Your task to perform on an android device: turn off javascript in the chrome app Image 0: 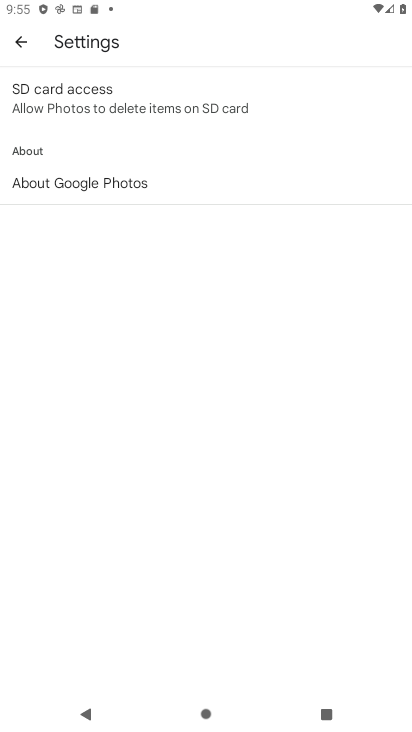
Step 0: press home button
Your task to perform on an android device: turn off javascript in the chrome app Image 1: 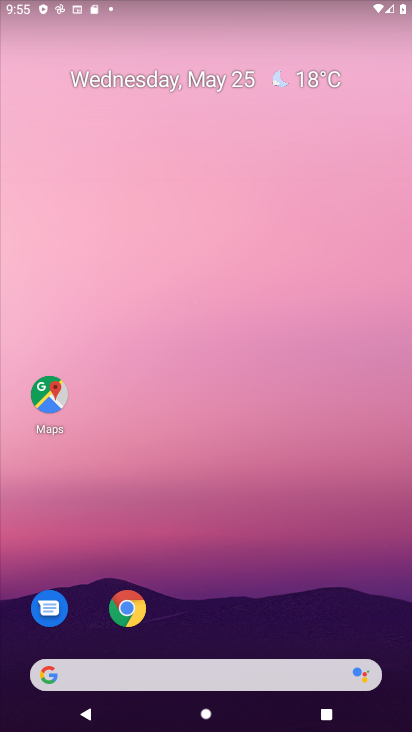
Step 1: click (139, 613)
Your task to perform on an android device: turn off javascript in the chrome app Image 2: 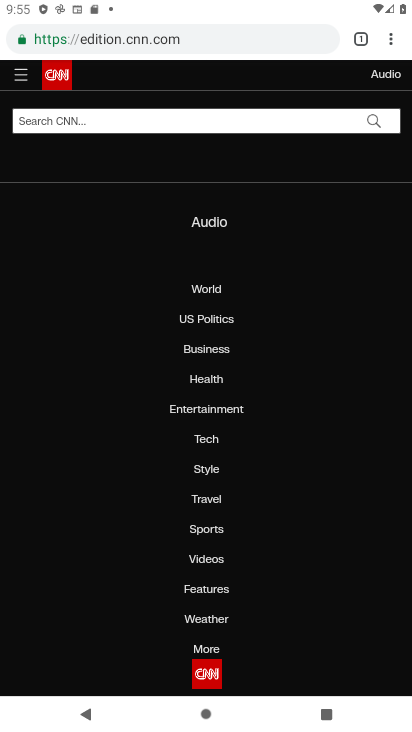
Step 2: click (386, 39)
Your task to perform on an android device: turn off javascript in the chrome app Image 3: 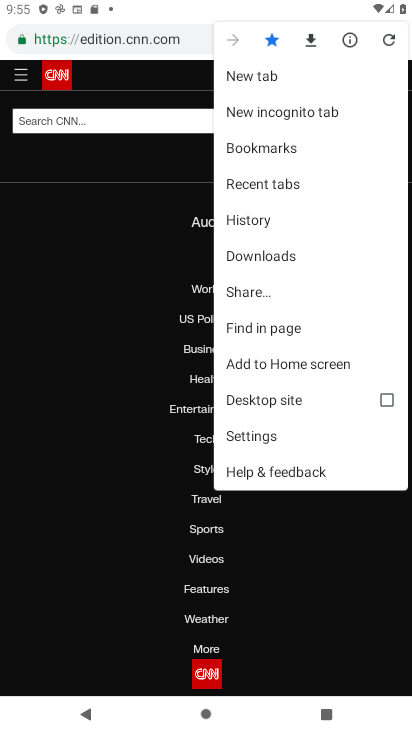
Step 3: click (264, 434)
Your task to perform on an android device: turn off javascript in the chrome app Image 4: 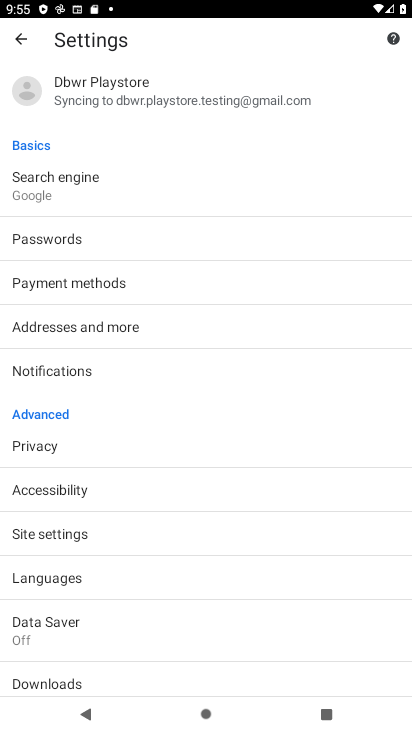
Step 4: click (100, 535)
Your task to perform on an android device: turn off javascript in the chrome app Image 5: 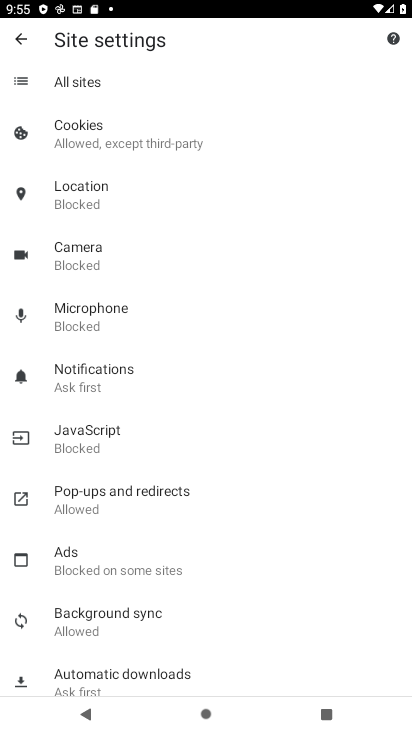
Step 5: click (115, 437)
Your task to perform on an android device: turn off javascript in the chrome app Image 6: 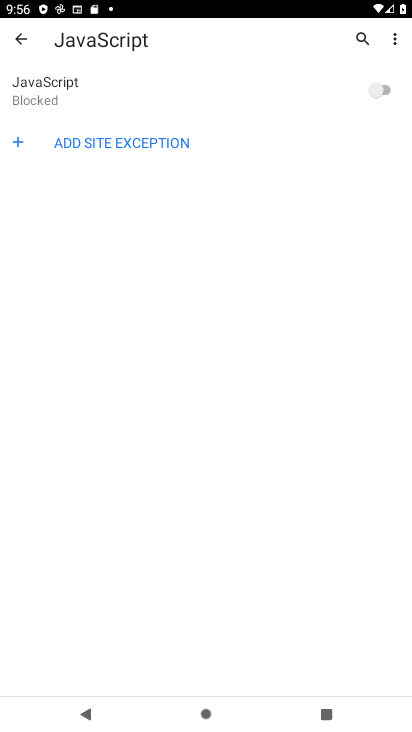
Step 6: task complete